Your task to perform on an android device: Go to battery settings Image 0: 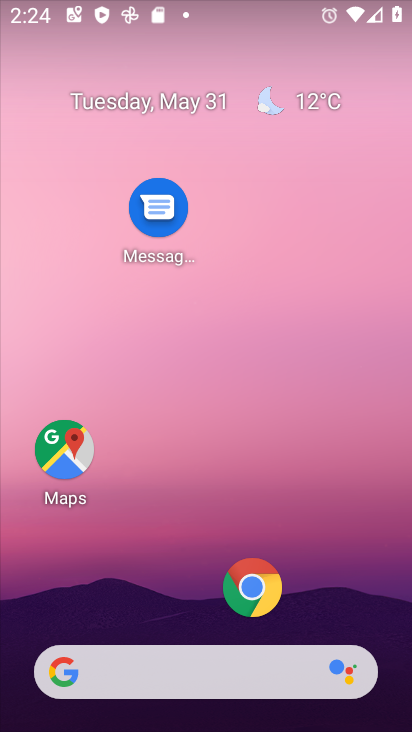
Step 0: drag from (198, 584) to (31, 66)
Your task to perform on an android device: Go to battery settings Image 1: 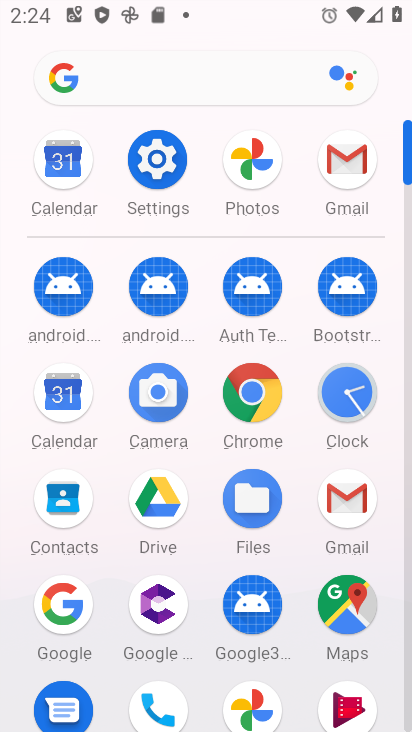
Step 1: click (147, 153)
Your task to perform on an android device: Go to battery settings Image 2: 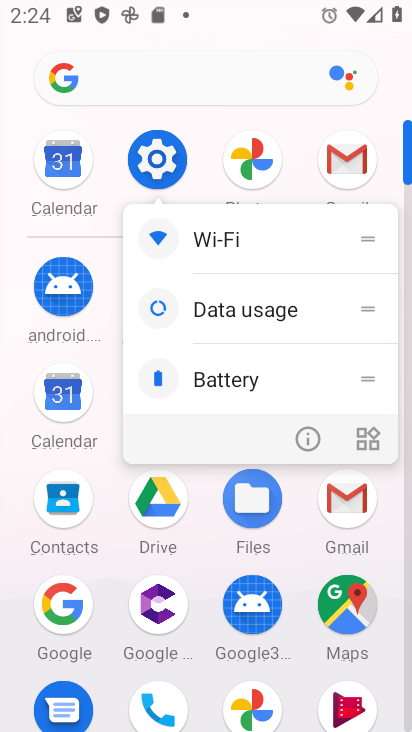
Step 2: click (301, 427)
Your task to perform on an android device: Go to battery settings Image 3: 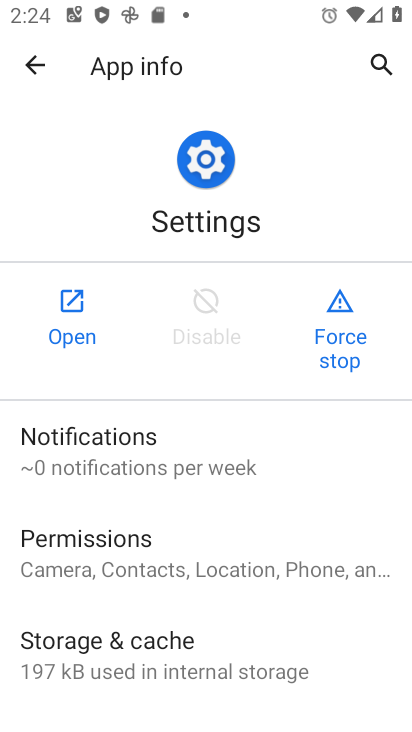
Step 3: click (75, 332)
Your task to perform on an android device: Go to battery settings Image 4: 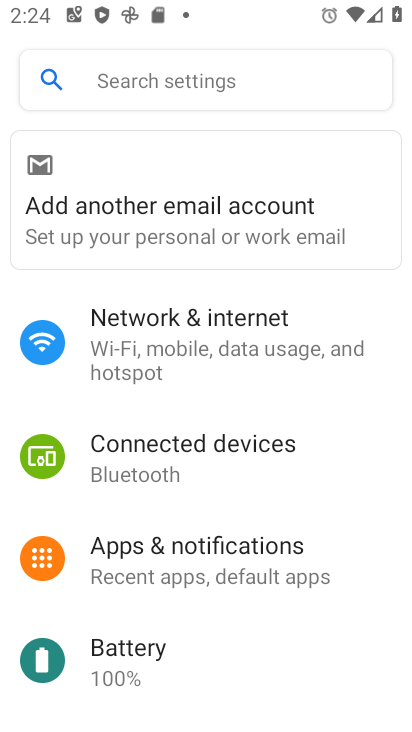
Step 4: drag from (219, 665) to (204, 386)
Your task to perform on an android device: Go to battery settings Image 5: 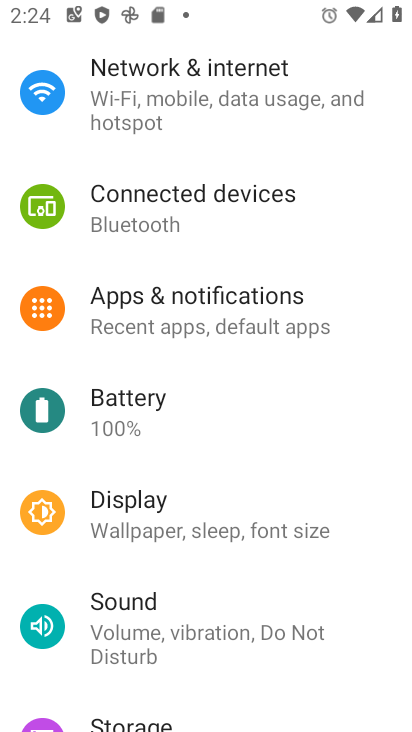
Step 5: click (183, 397)
Your task to perform on an android device: Go to battery settings Image 6: 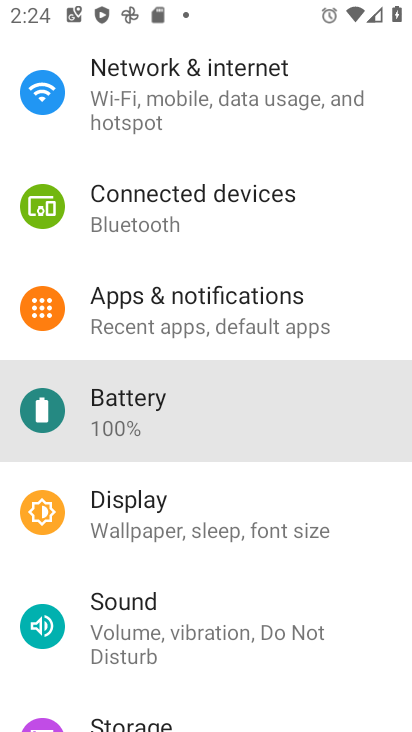
Step 6: click (183, 397)
Your task to perform on an android device: Go to battery settings Image 7: 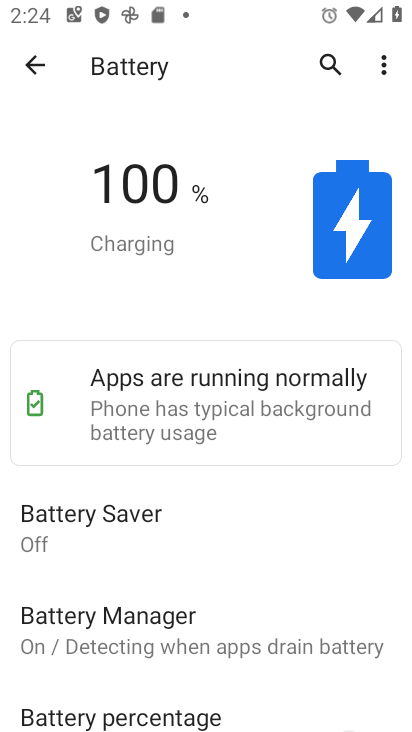
Step 7: task complete